Your task to perform on an android device: toggle show notifications on the lock screen Image 0: 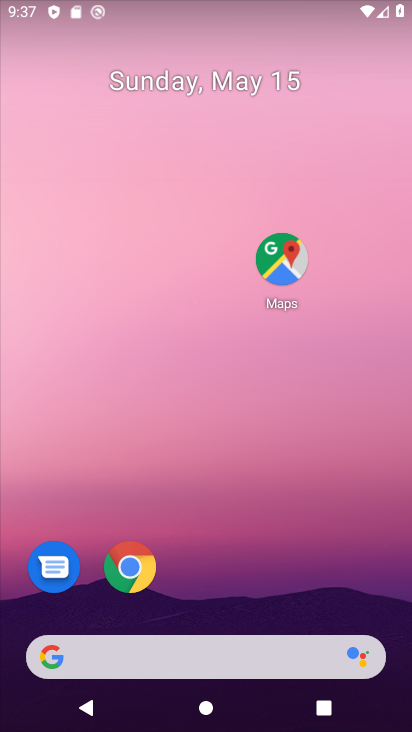
Step 0: drag from (241, 541) to (219, 100)
Your task to perform on an android device: toggle show notifications on the lock screen Image 1: 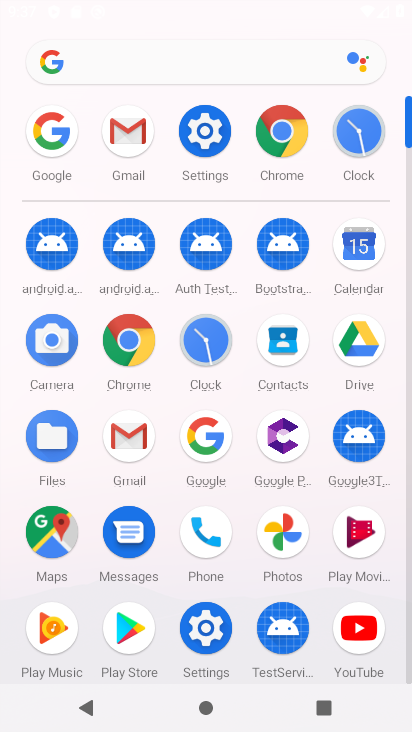
Step 1: click (201, 132)
Your task to perform on an android device: toggle show notifications on the lock screen Image 2: 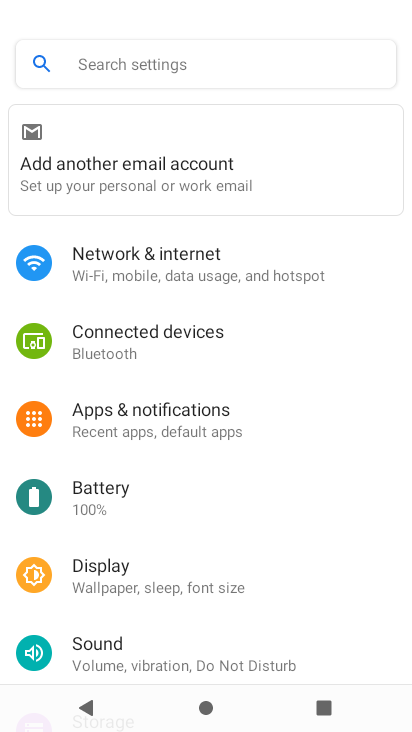
Step 2: click (194, 424)
Your task to perform on an android device: toggle show notifications on the lock screen Image 3: 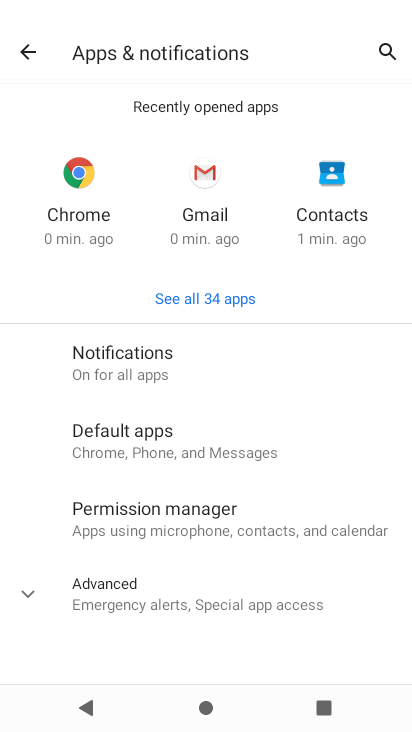
Step 3: click (157, 360)
Your task to perform on an android device: toggle show notifications on the lock screen Image 4: 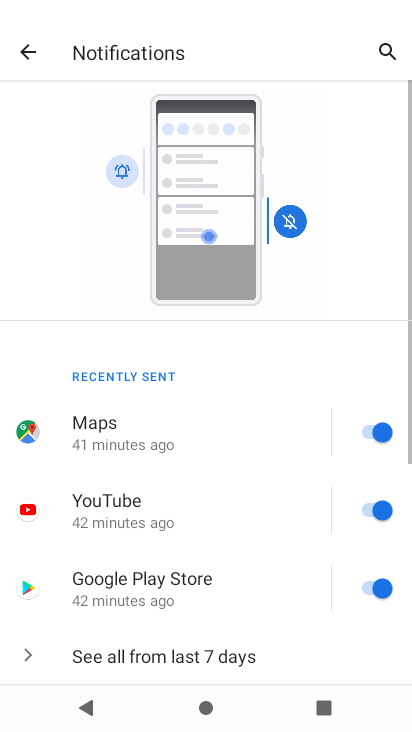
Step 4: drag from (230, 523) to (206, 1)
Your task to perform on an android device: toggle show notifications on the lock screen Image 5: 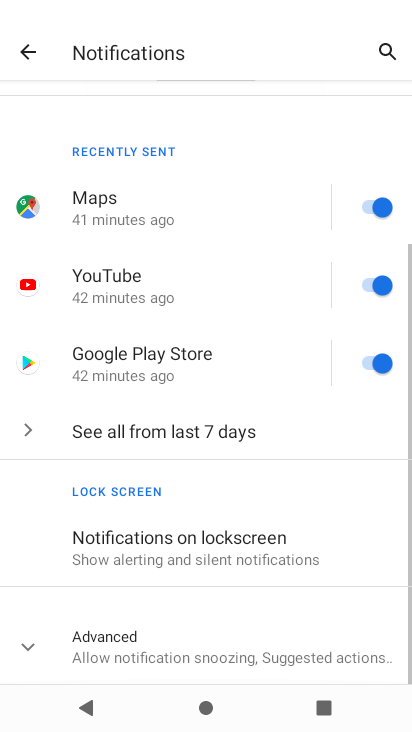
Step 5: click (187, 560)
Your task to perform on an android device: toggle show notifications on the lock screen Image 6: 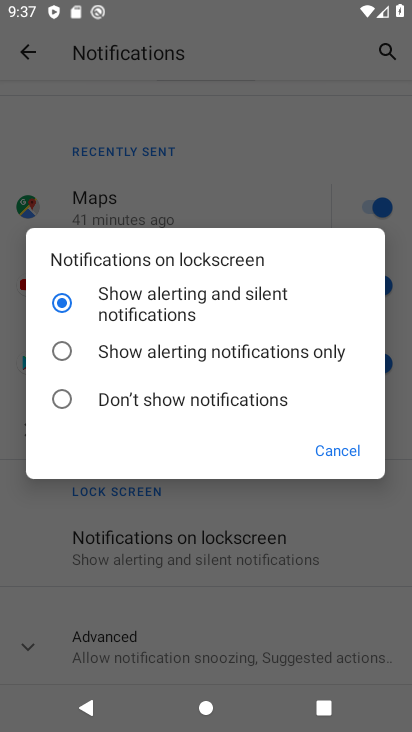
Step 6: click (63, 395)
Your task to perform on an android device: toggle show notifications on the lock screen Image 7: 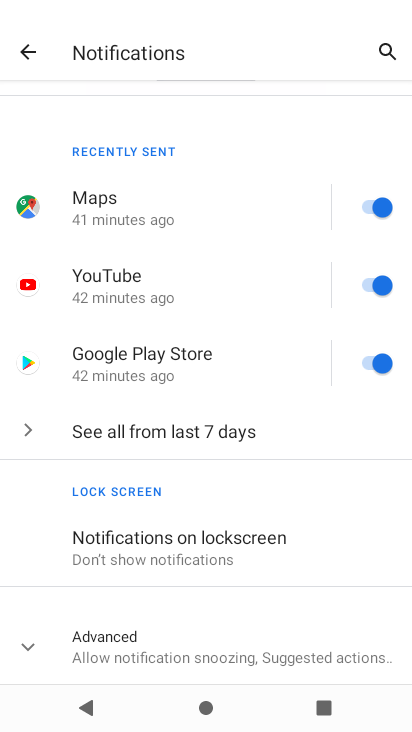
Step 7: task complete